Your task to perform on an android device: toggle show notifications on the lock screen Image 0: 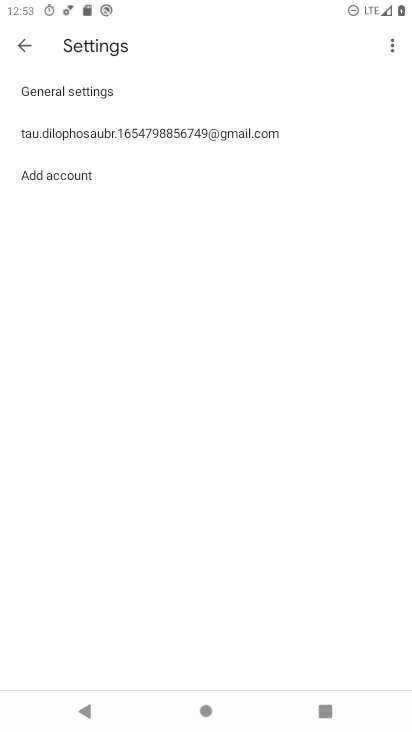
Step 0: press home button
Your task to perform on an android device: toggle show notifications on the lock screen Image 1: 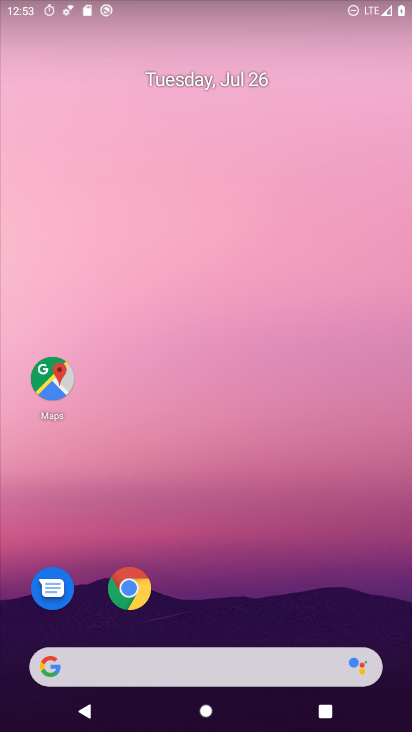
Step 1: drag from (247, 619) to (234, 136)
Your task to perform on an android device: toggle show notifications on the lock screen Image 2: 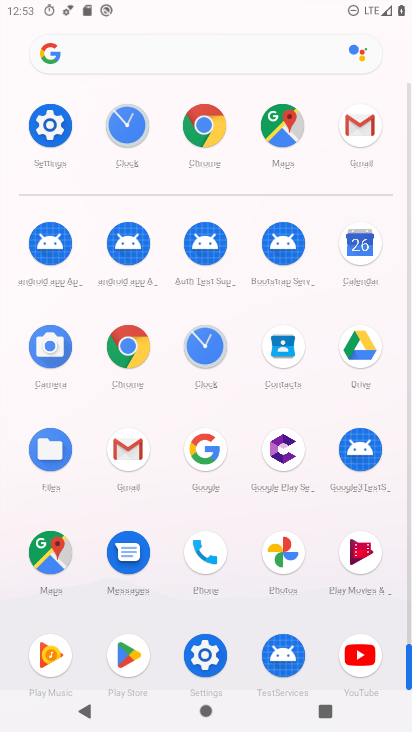
Step 2: click (212, 661)
Your task to perform on an android device: toggle show notifications on the lock screen Image 3: 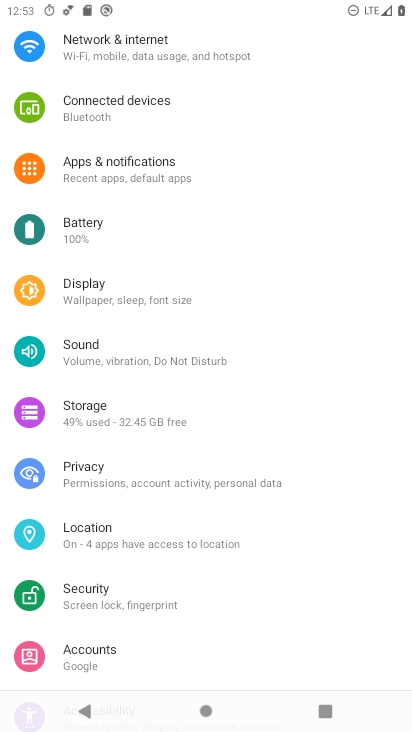
Step 3: drag from (215, 606) to (313, 226)
Your task to perform on an android device: toggle show notifications on the lock screen Image 4: 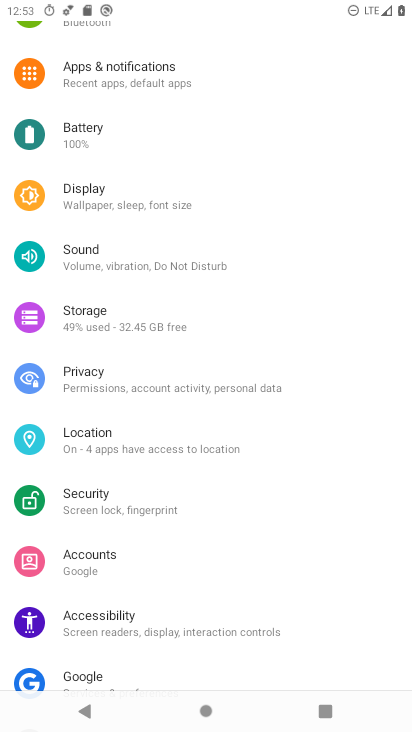
Step 4: click (158, 91)
Your task to perform on an android device: toggle show notifications on the lock screen Image 5: 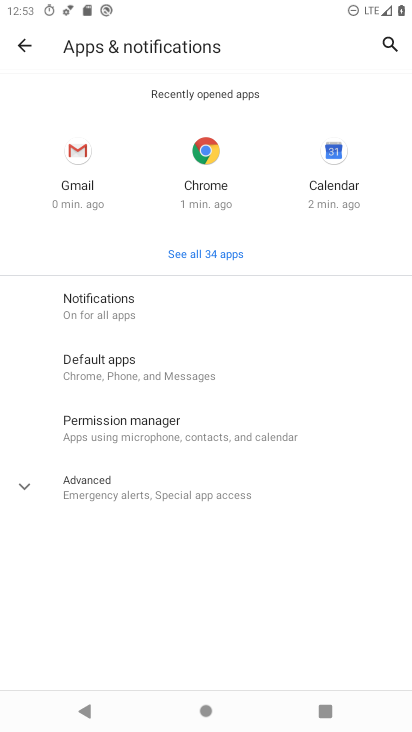
Step 5: click (168, 318)
Your task to perform on an android device: toggle show notifications on the lock screen Image 6: 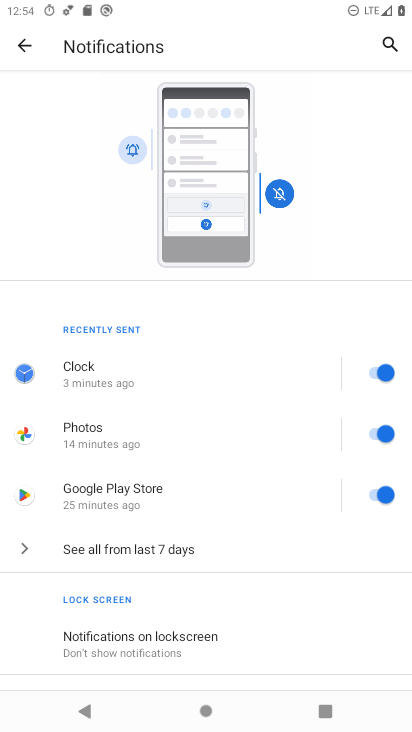
Step 6: click (197, 649)
Your task to perform on an android device: toggle show notifications on the lock screen Image 7: 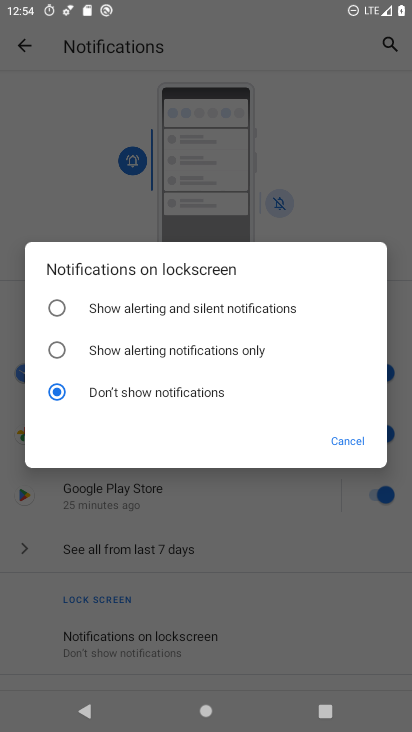
Step 7: click (152, 310)
Your task to perform on an android device: toggle show notifications on the lock screen Image 8: 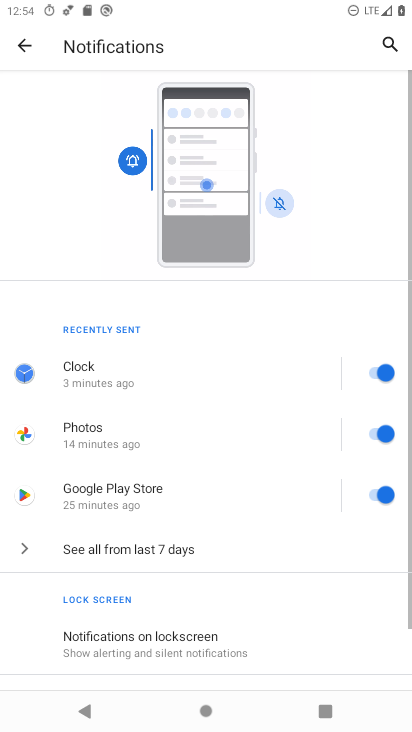
Step 8: task complete